Your task to perform on an android device: How much does a 2 bedroom apartment rent for in Atlanta? Image 0: 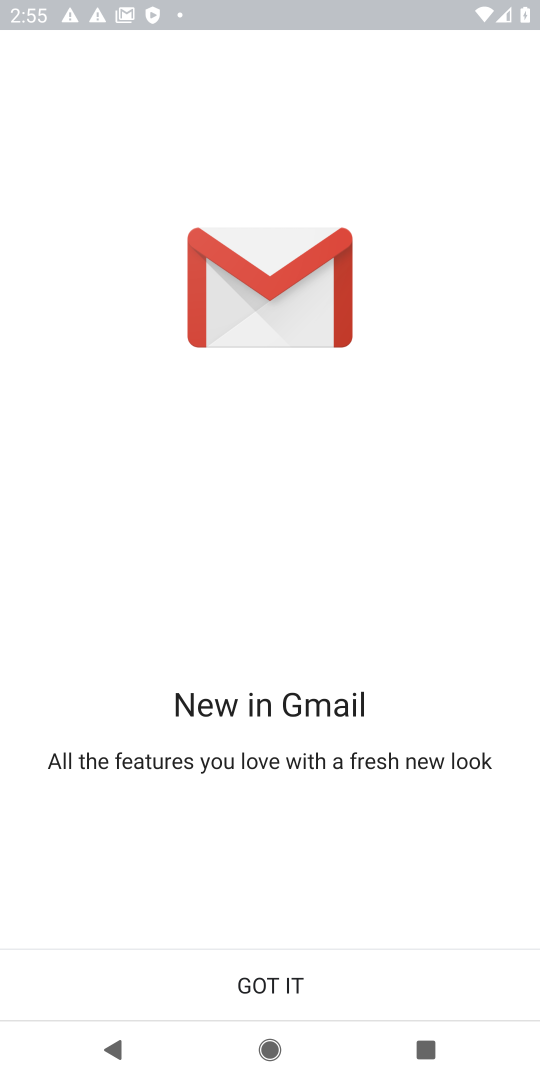
Step 0: press home button
Your task to perform on an android device: How much does a 2 bedroom apartment rent for in Atlanta? Image 1: 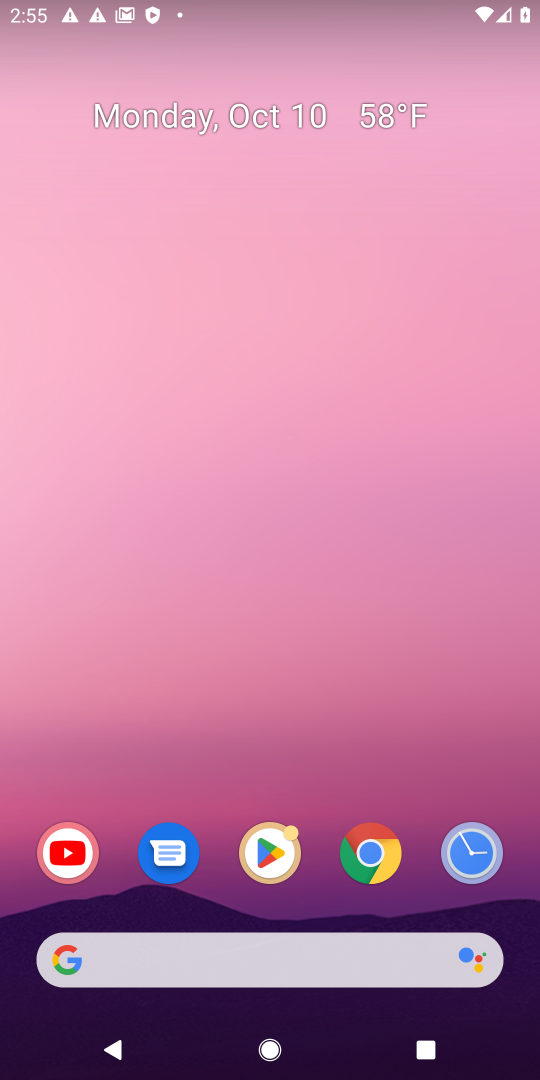
Step 1: click (128, 964)
Your task to perform on an android device: How much does a 2 bedroom apartment rent for in Atlanta? Image 2: 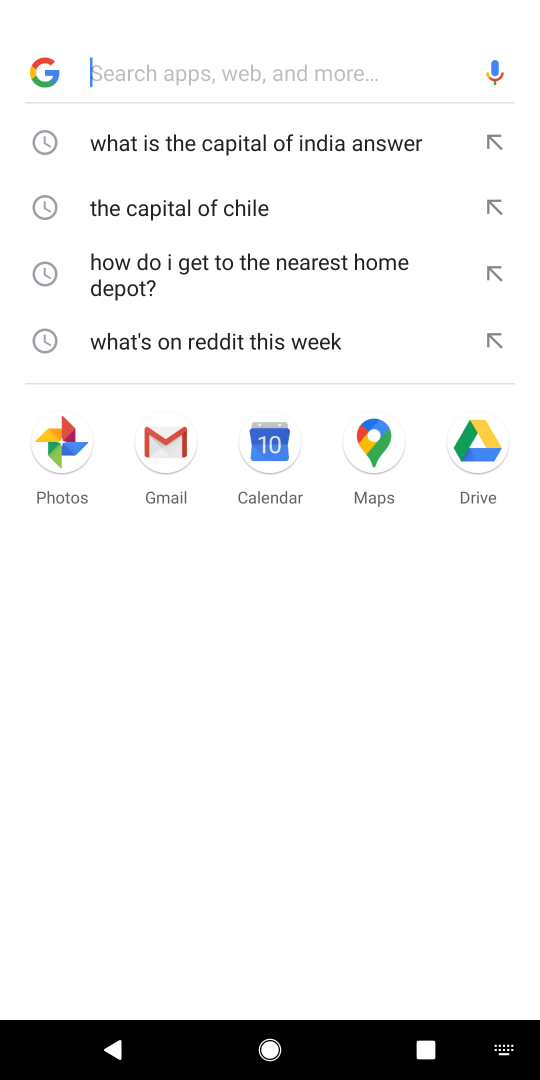
Step 2: click (150, 58)
Your task to perform on an android device: How much does a 2 bedroom apartment rent for in Atlanta? Image 3: 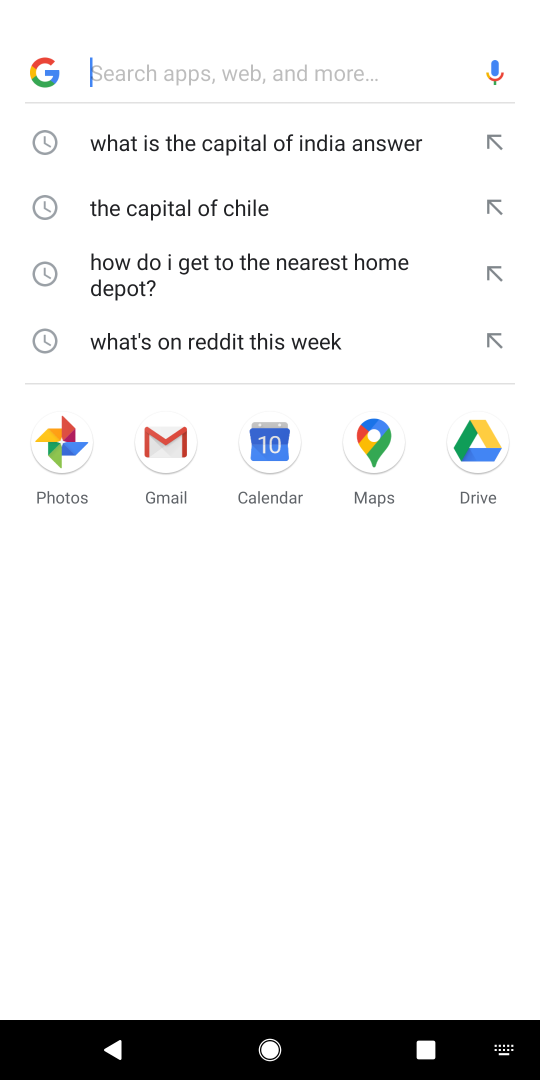
Step 3: type "How much does a 2 bedroom apartment rent for in Atlanta"
Your task to perform on an android device: How much does a 2 bedroom apartment rent for in Atlanta? Image 4: 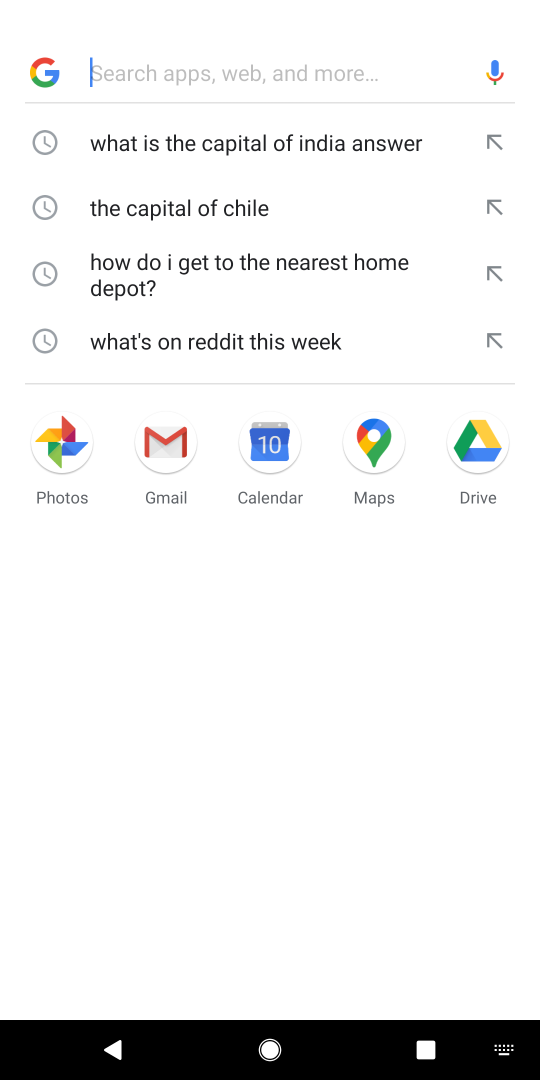
Step 4: click (28, 722)
Your task to perform on an android device: How much does a 2 bedroom apartment rent for in Atlanta? Image 5: 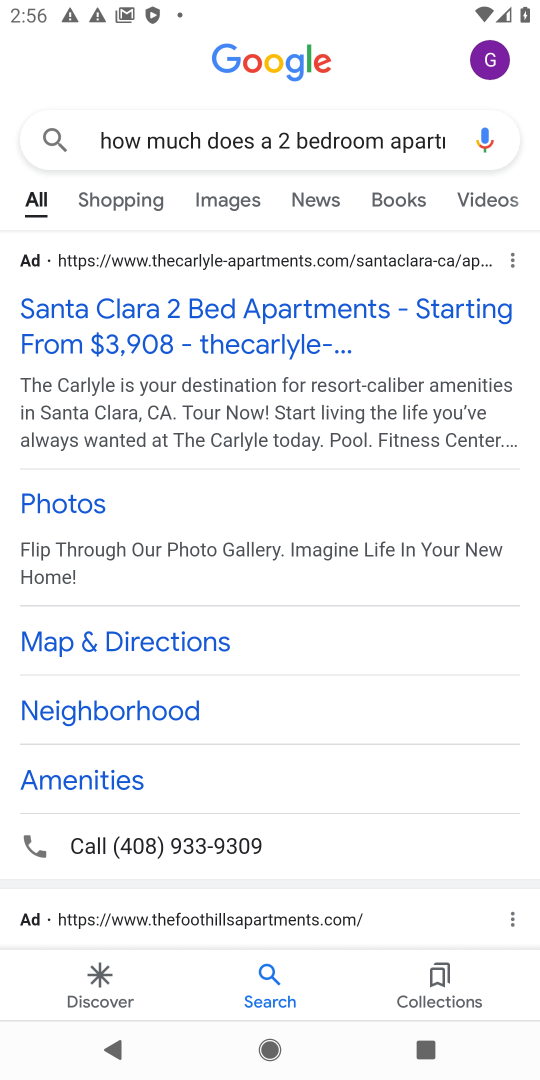
Step 5: drag from (271, 708) to (411, 166)
Your task to perform on an android device: How much does a 2 bedroom apartment rent for in Atlanta? Image 6: 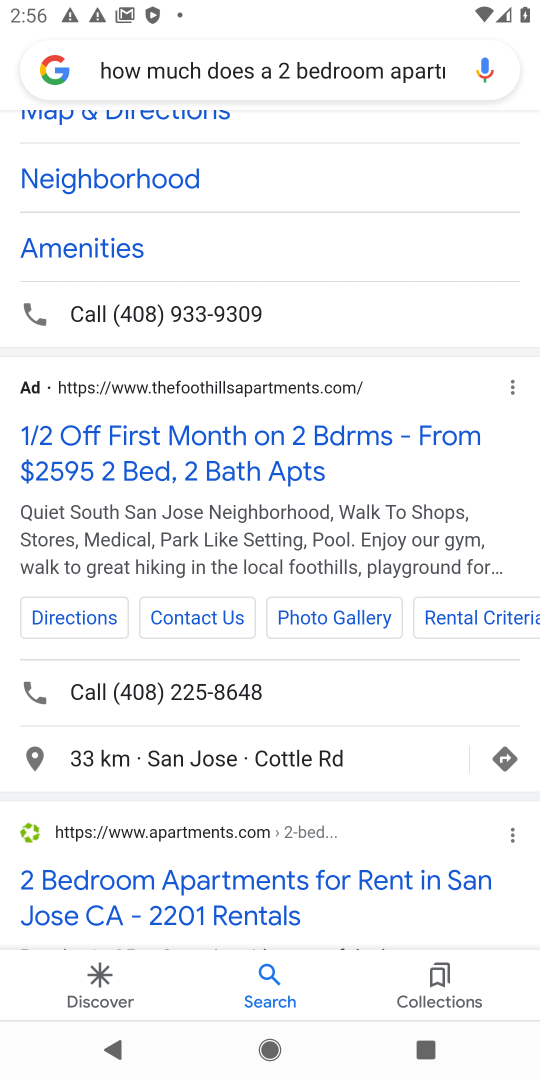
Step 6: drag from (206, 829) to (376, 218)
Your task to perform on an android device: How much does a 2 bedroom apartment rent for in Atlanta? Image 7: 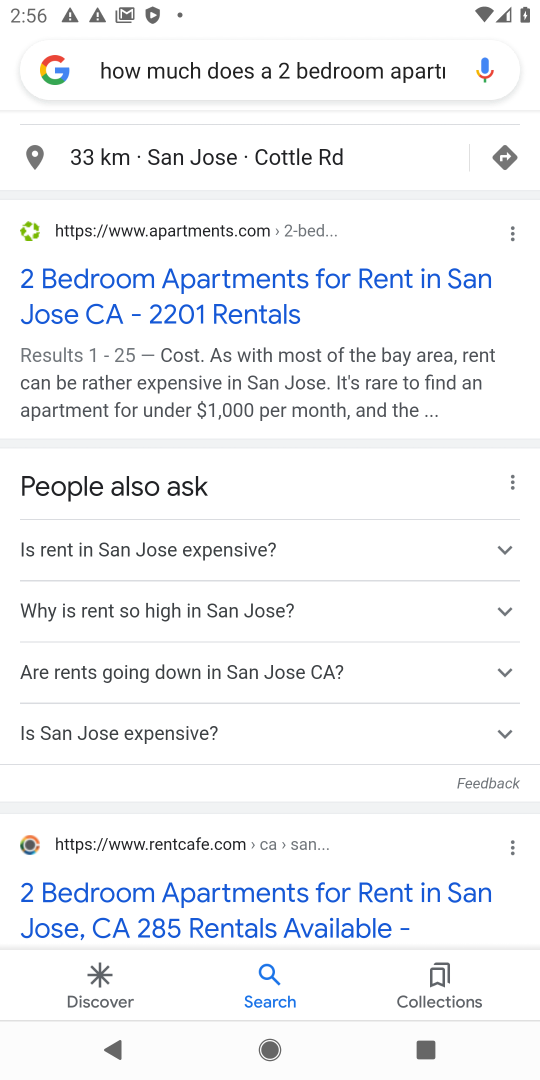
Step 7: click (242, 311)
Your task to perform on an android device: How much does a 2 bedroom apartment rent for in Atlanta? Image 8: 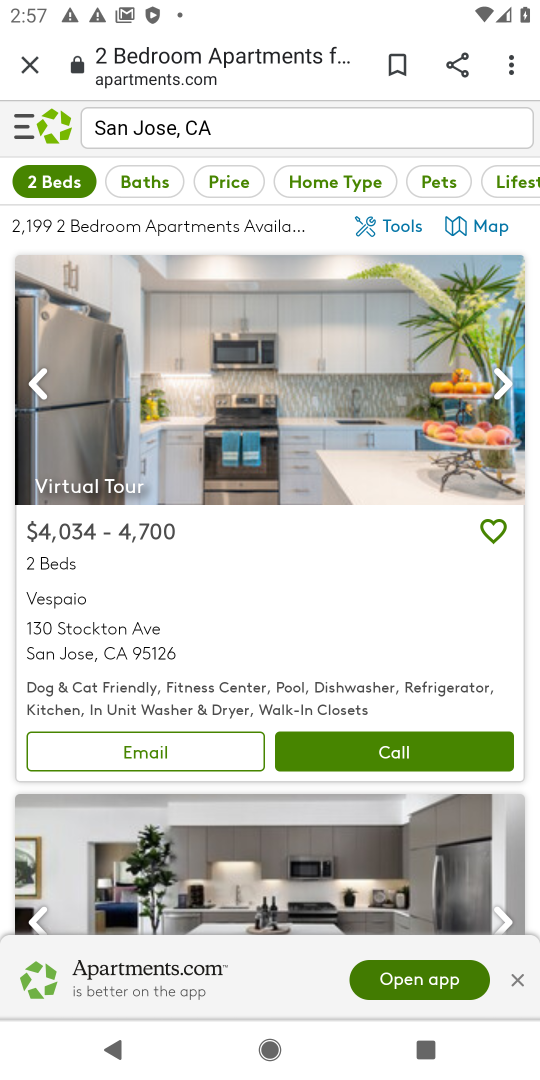
Step 8: task complete